Your task to perform on an android device: open chrome privacy settings Image 0: 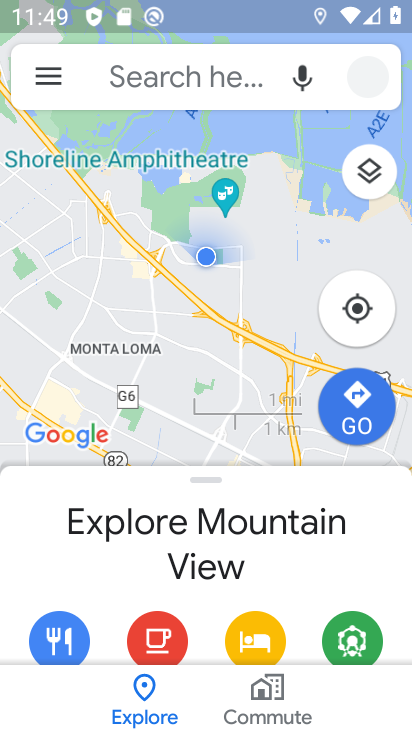
Step 0: press home button
Your task to perform on an android device: open chrome privacy settings Image 1: 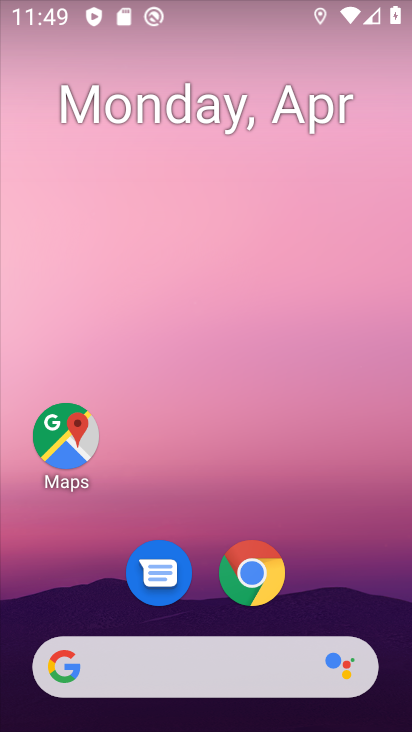
Step 1: click (242, 574)
Your task to perform on an android device: open chrome privacy settings Image 2: 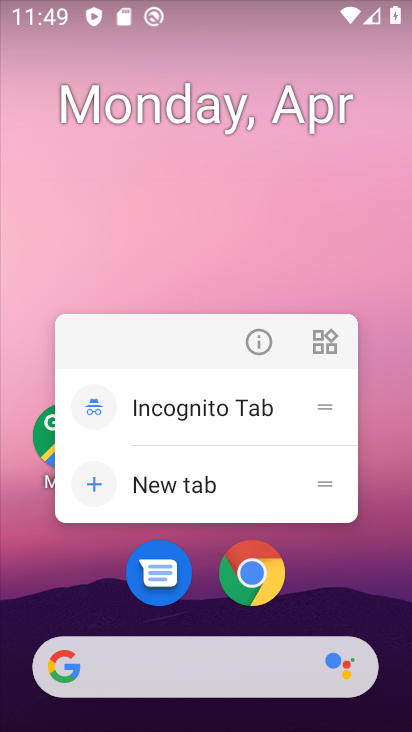
Step 2: click (245, 570)
Your task to perform on an android device: open chrome privacy settings Image 3: 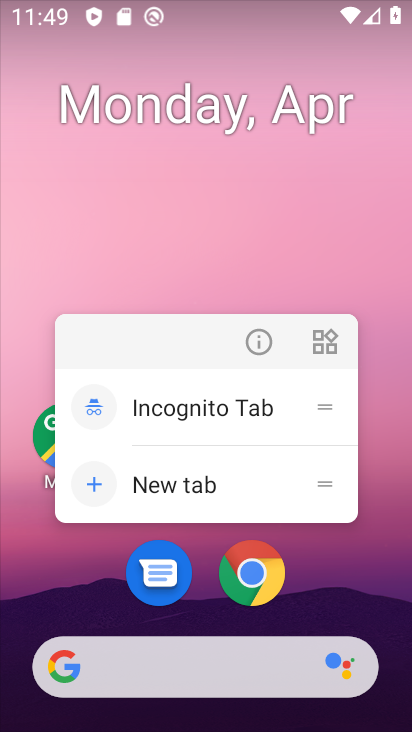
Step 3: click (255, 562)
Your task to perform on an android device: open chrome privacy settings Image 4: 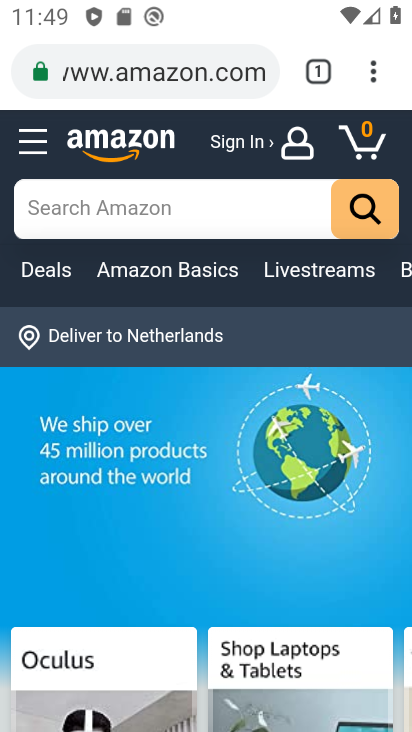
Step 4: click (370, 70)
Your task to perform on an android device: open chrome privacy settings Image 5: 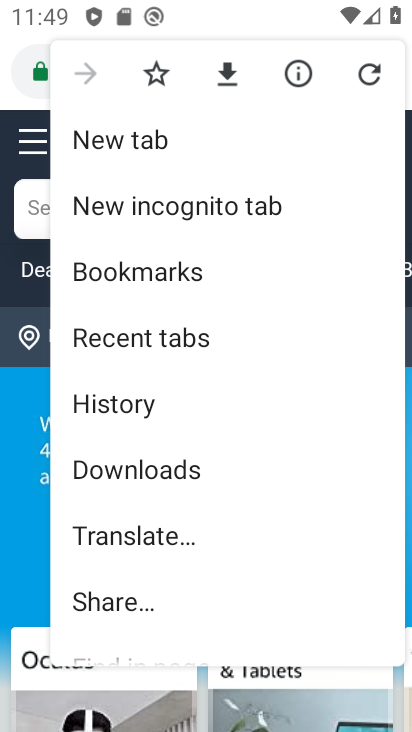
Step 5: drag from (223, 542) to (195, 161)
Your task to perform on an android device: open chrome privacy settings Image 6: 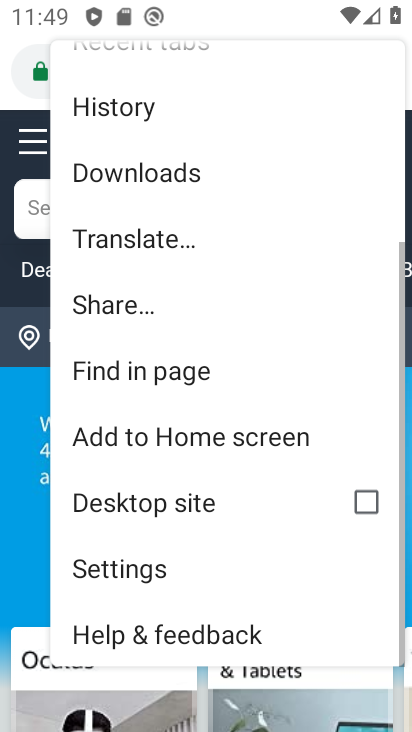
Step 6: click (108, 575)
Your task to perform on an android device: open chrome privacy settings Image 7: 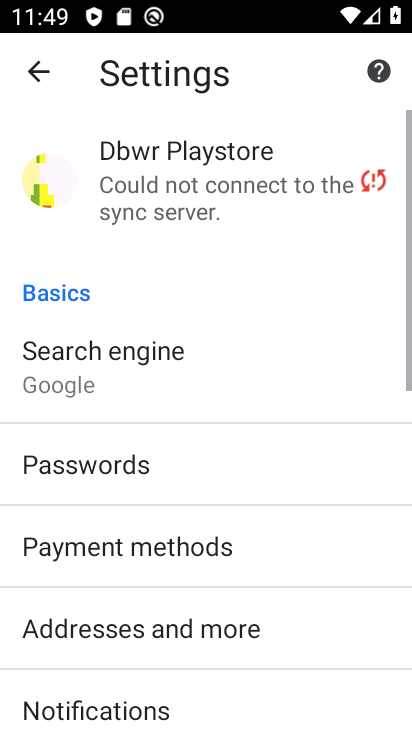
Step 7: drag from (153, 623) to (134, 156)
Your task to perform on an android device: open chrome privacy settings Image 8: 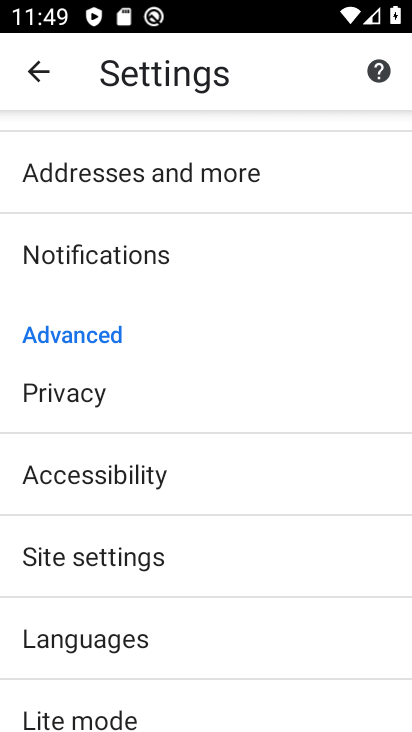
Step 8: click (68, 400)
Your task to perform on an android device: open chrome privacy settings Image 9: 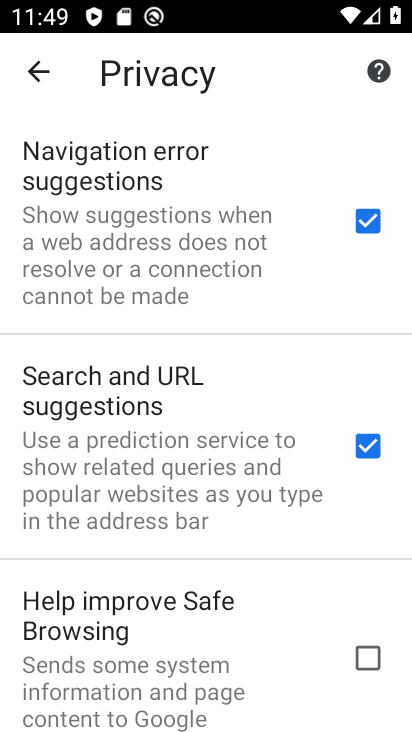
Step 9: task complete